Your task to perform on an android device: turn on improve location accuracy Image 0: 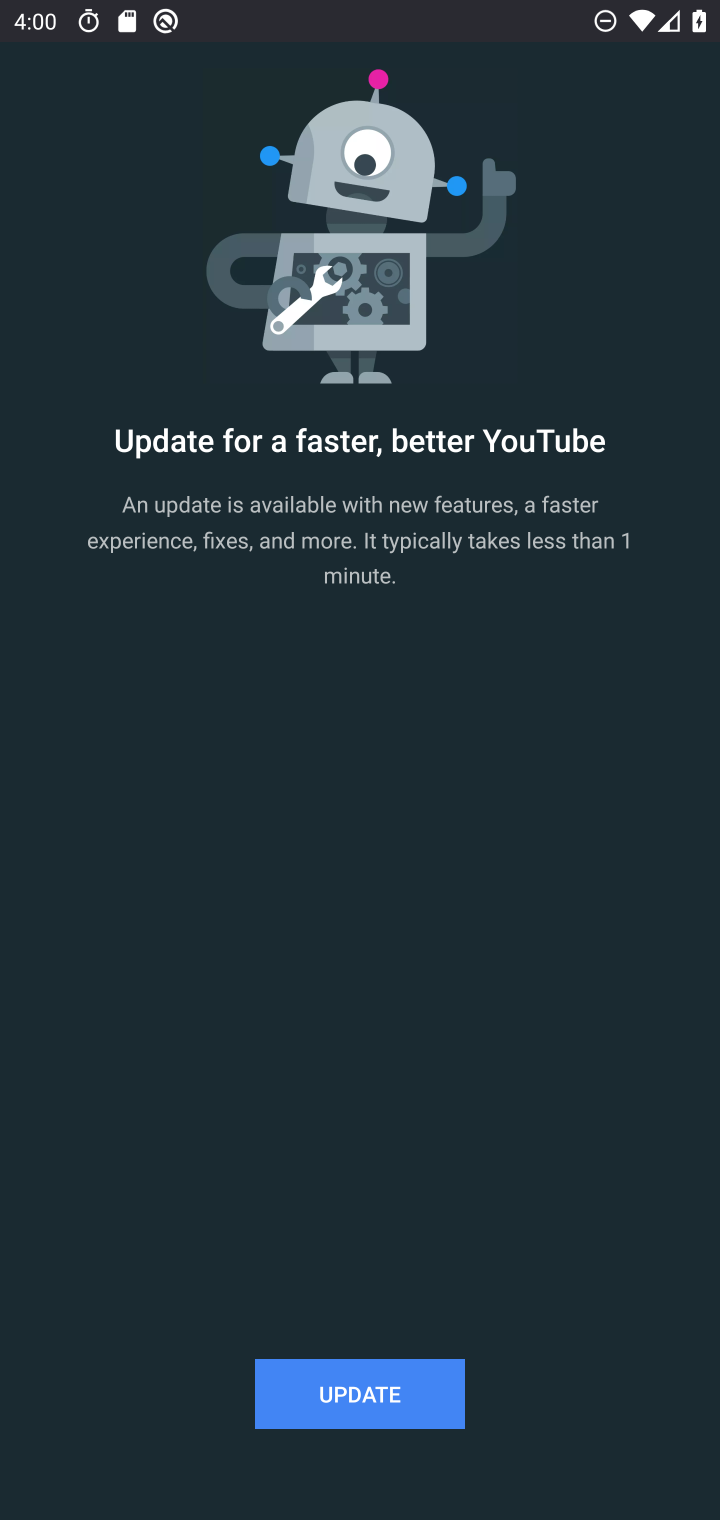
Step 0: press back button
Your task to perform on an android device: turn on improve location accuracy Image 1: 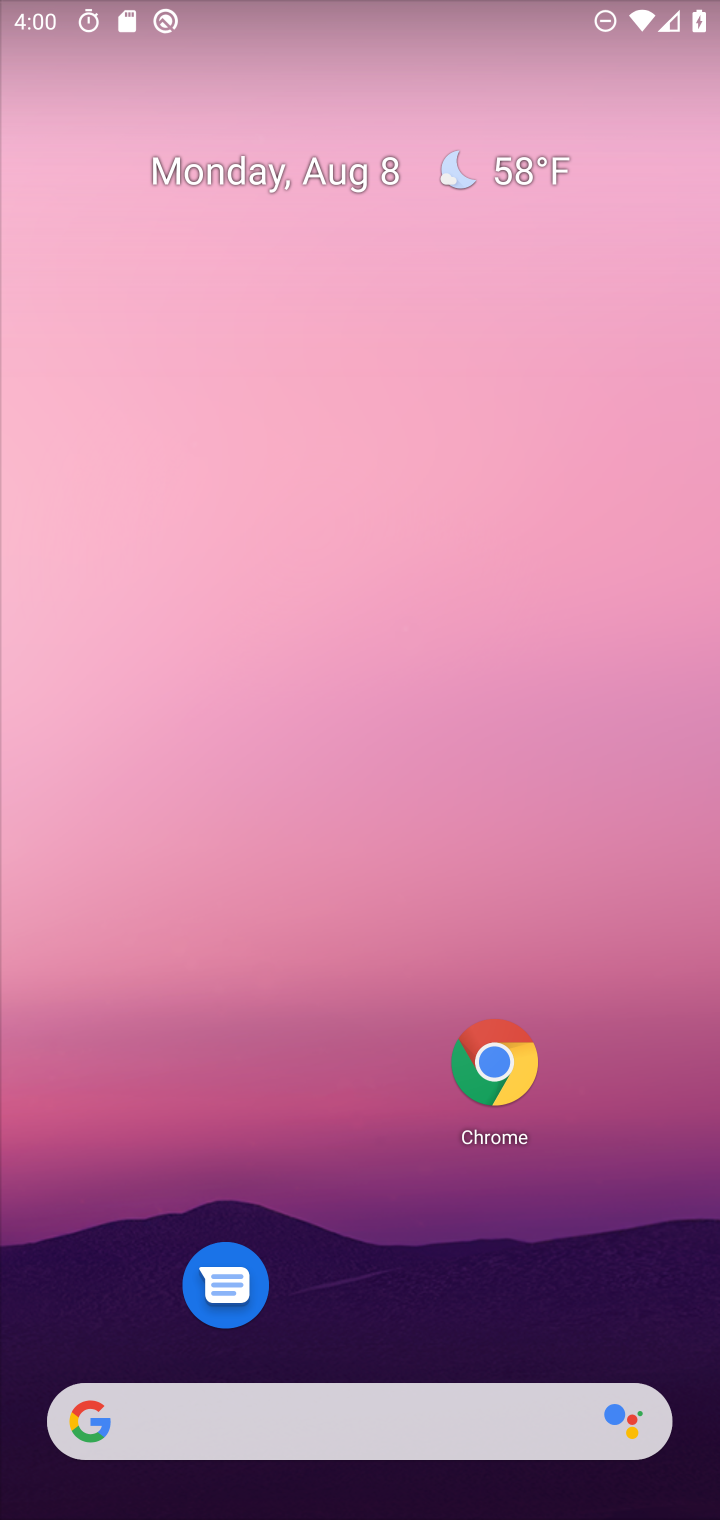
Step 1: drag from (370, 695) to (408, 67)
Your task to perform on an android device: turn on improve location accuracy Image 2: 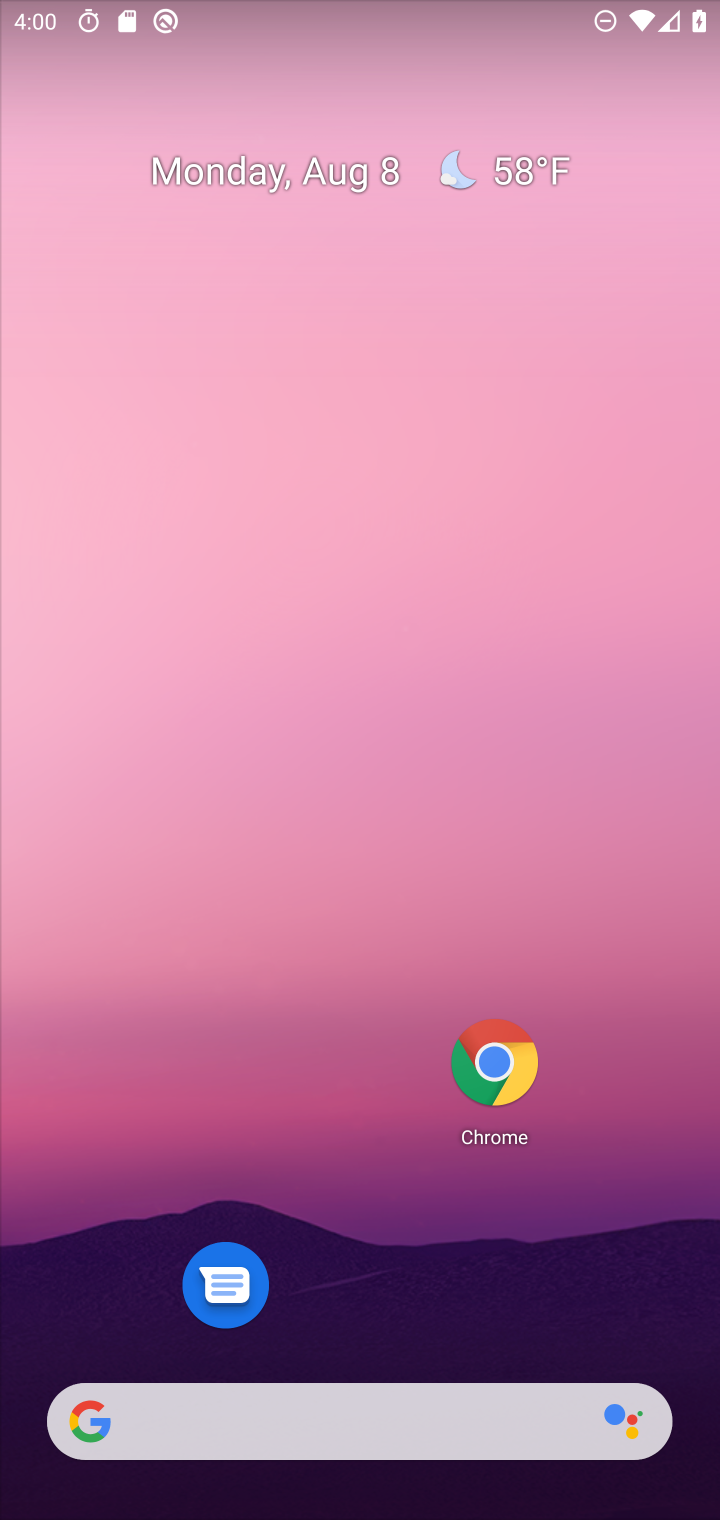
Step 2: drag from (389, 1175) to (511, 34)
Your task to perform on an android device: turn on improve location accuracy Image 3: 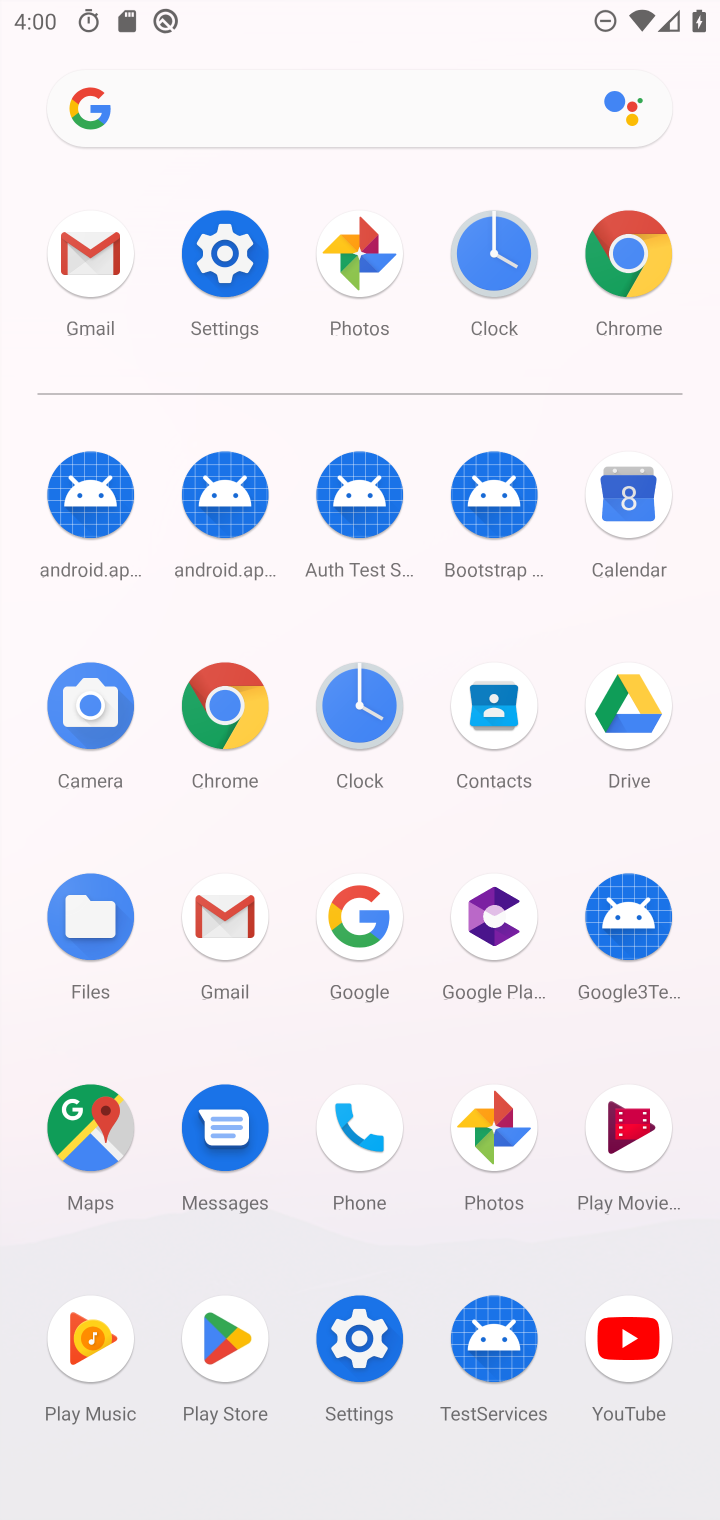
Step 3: click (373, 1348)
Your task to perform on an android device: turn on improve location accuracy Image 4: 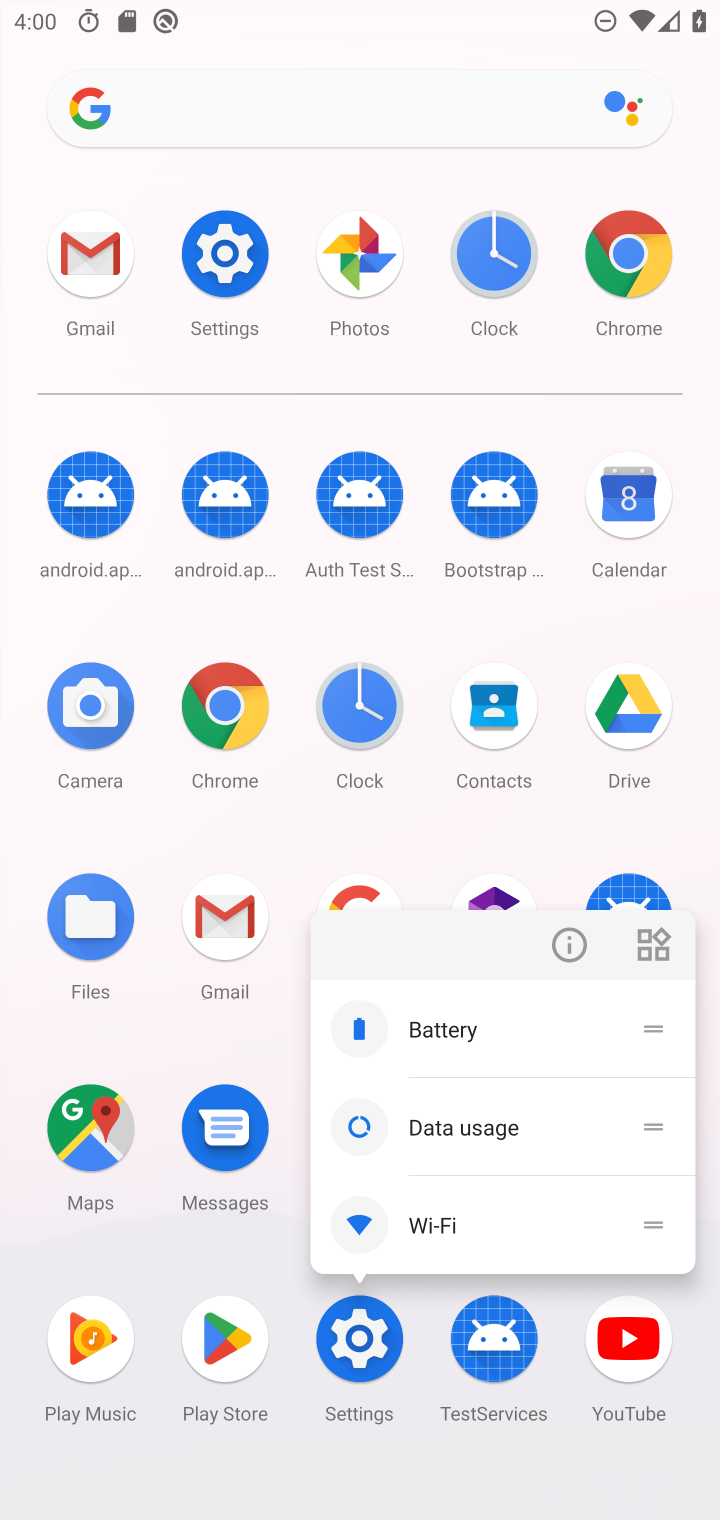
Step 4: click (354, 1340)
Your task to perform on an android device: turn on improve location accuracy Image 5: 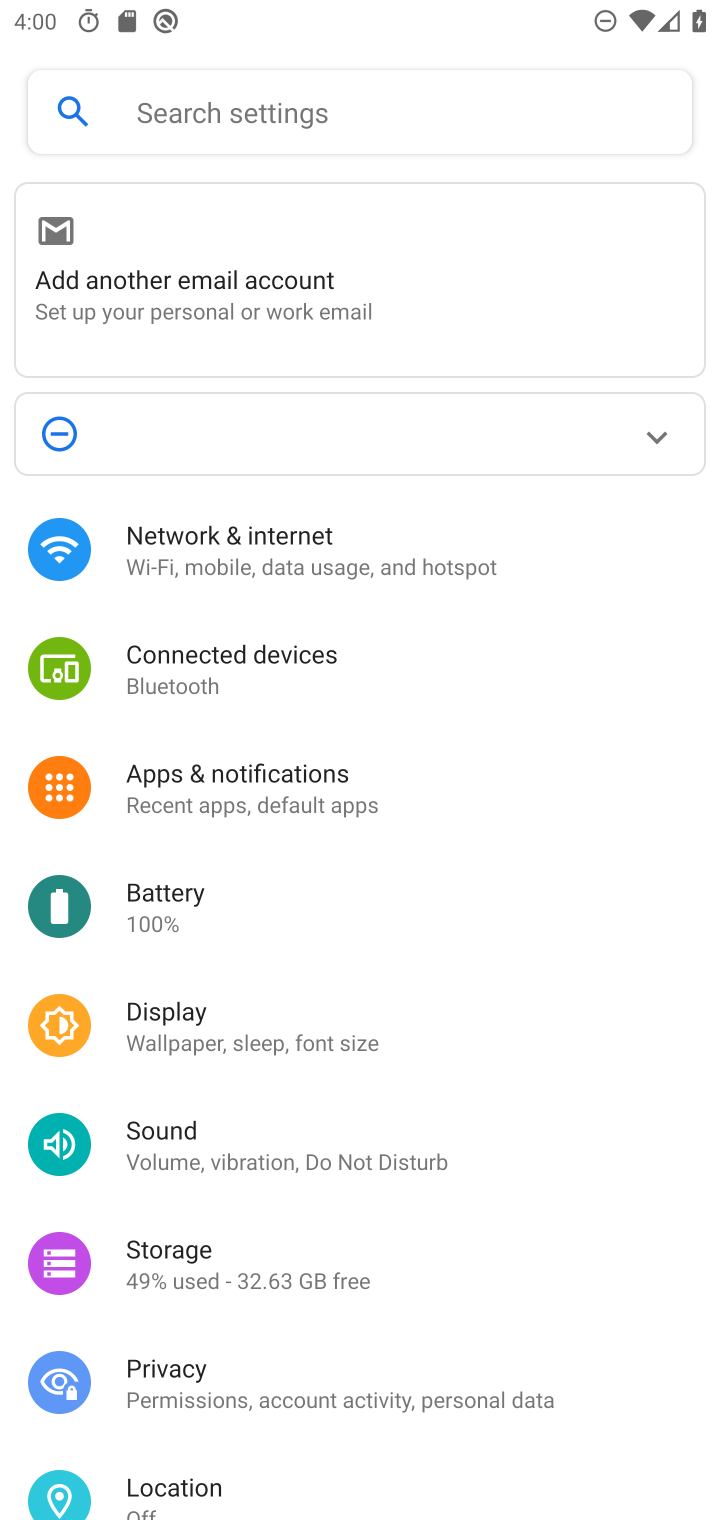
Step 5: click (233, 1483)
Your task to perform on an android device: turn on improve location accuracy Image 6: 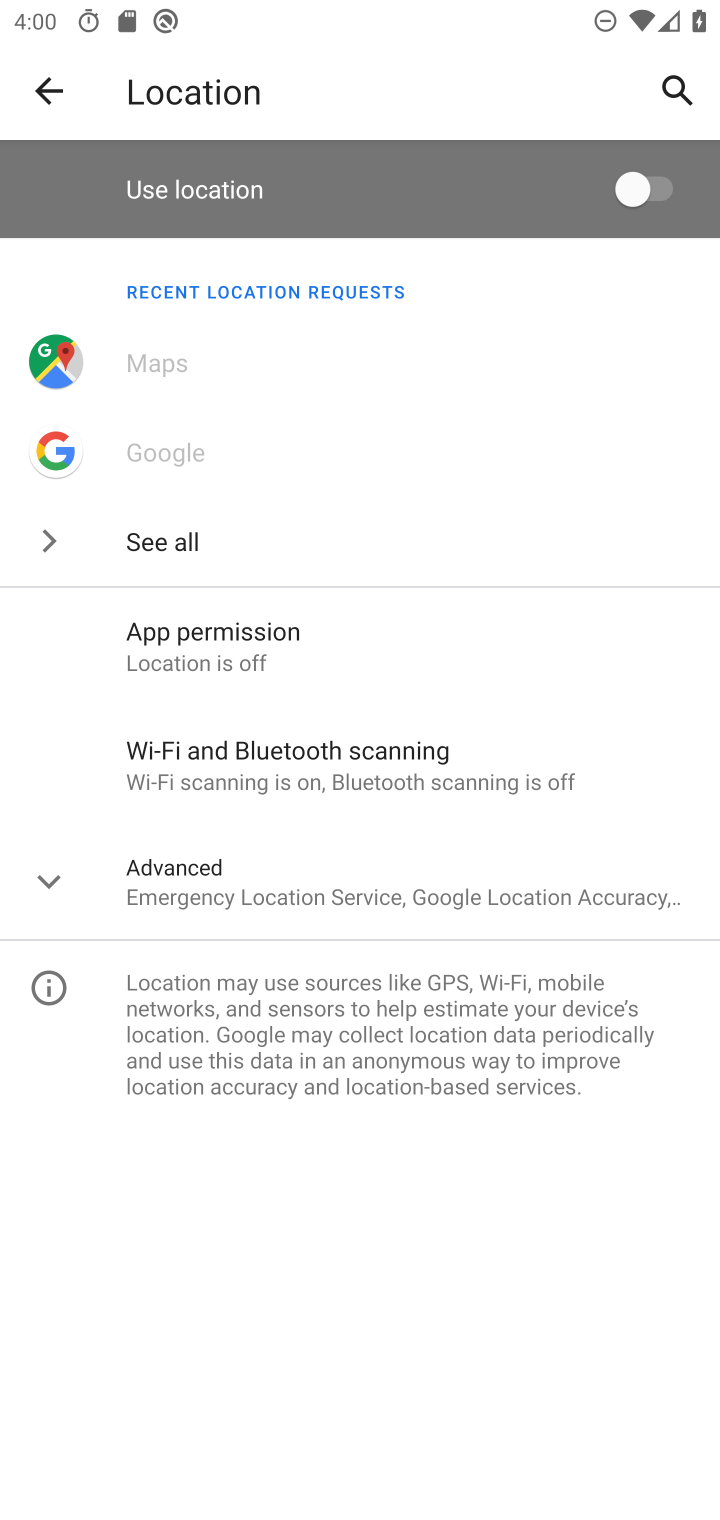
Step 6: click (234, 817)
Your task to perform on an android device: turn on improve location accuracy Image 7: 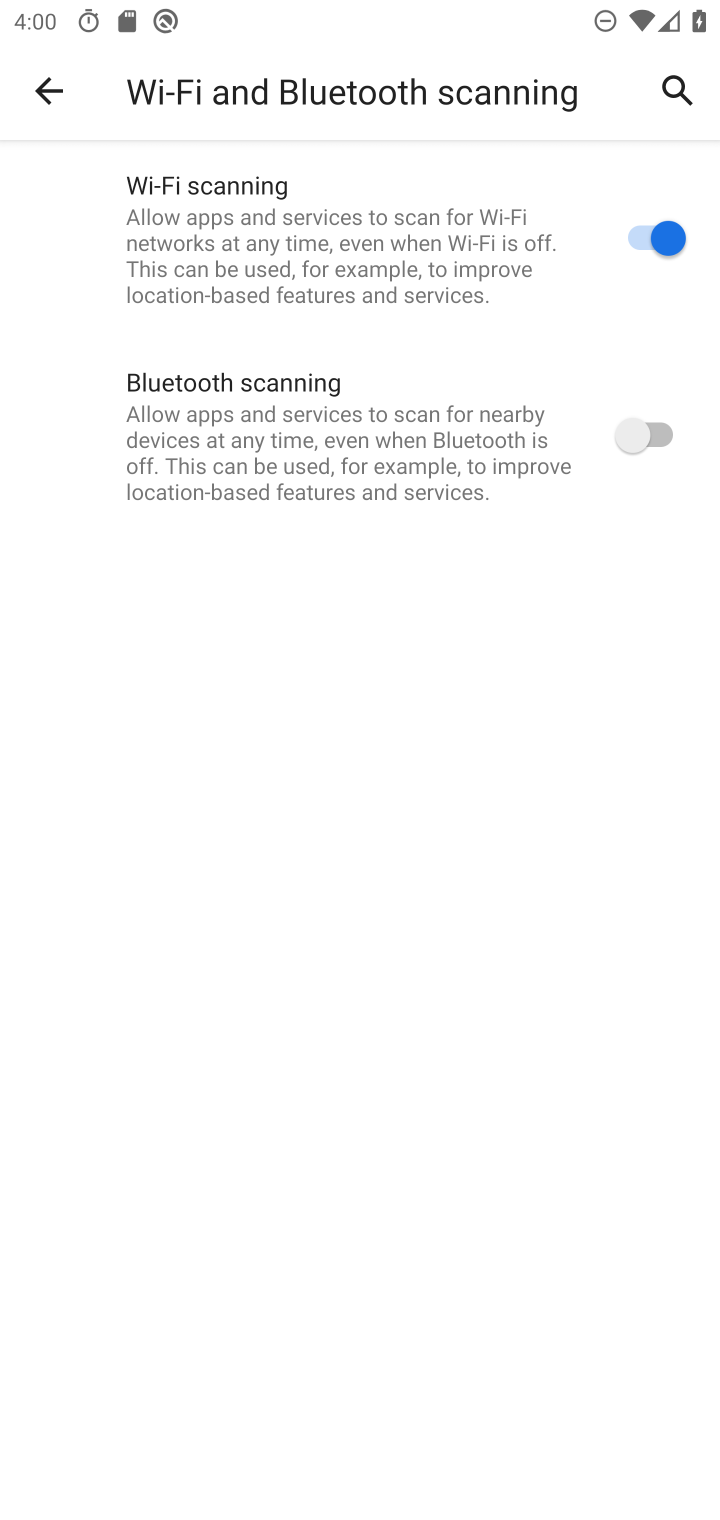
Step 7: click (55, 65)
Your task to perform on an android device: turn on improve location accuracy Image 8: 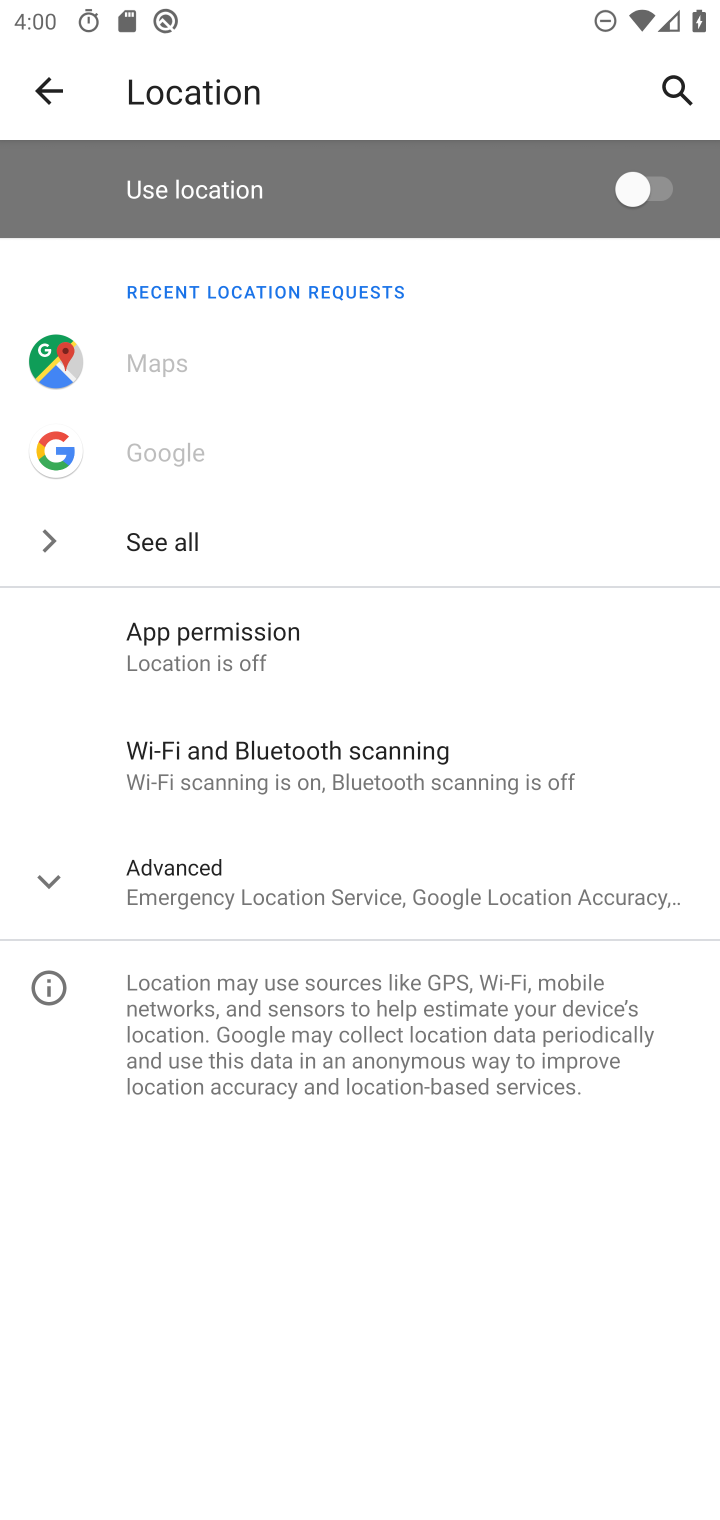
Step 8: click (200, 867)
Your task to perform on an android device: turn on improve location accuracy Image 9: 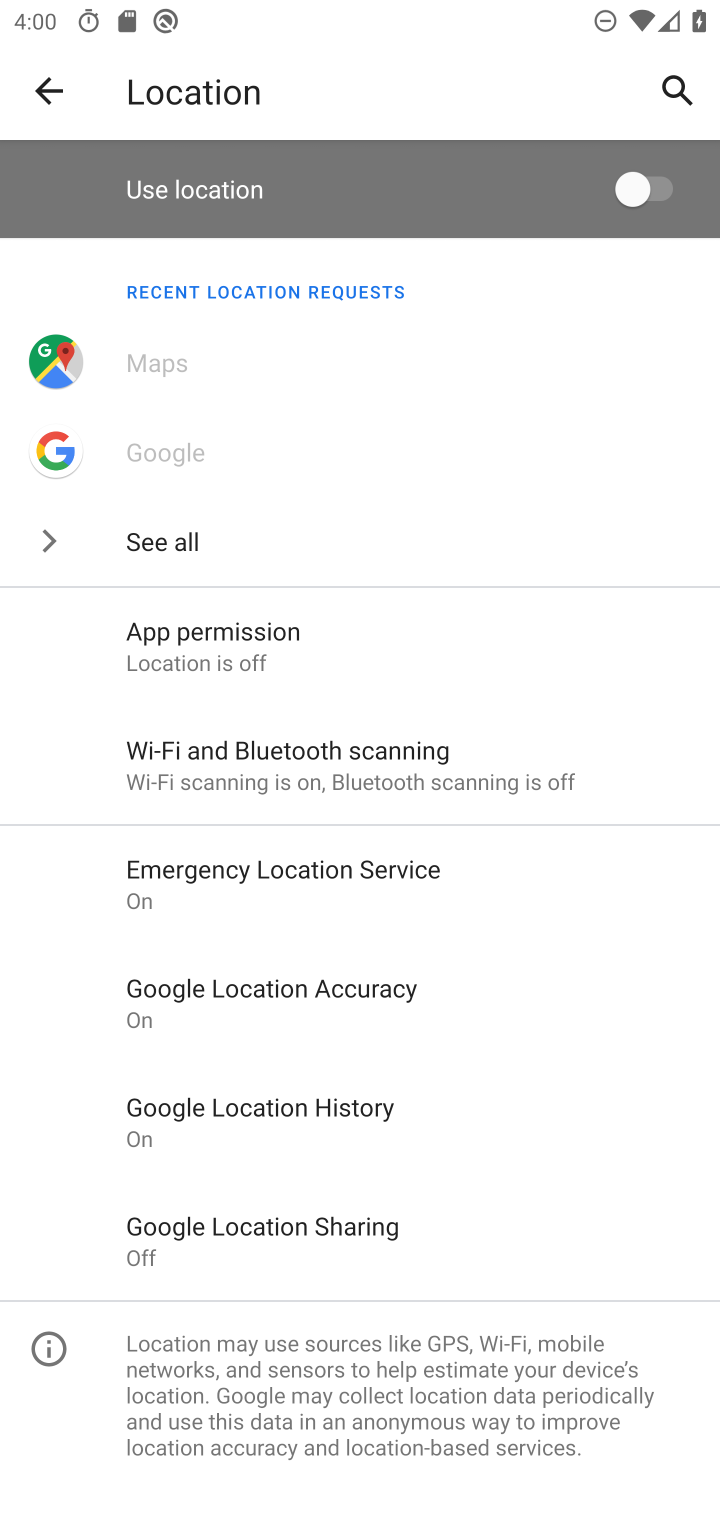
Step 9: click (264, 995)
Your task to perform on an android device: turn on improve location accuracy Image 10: 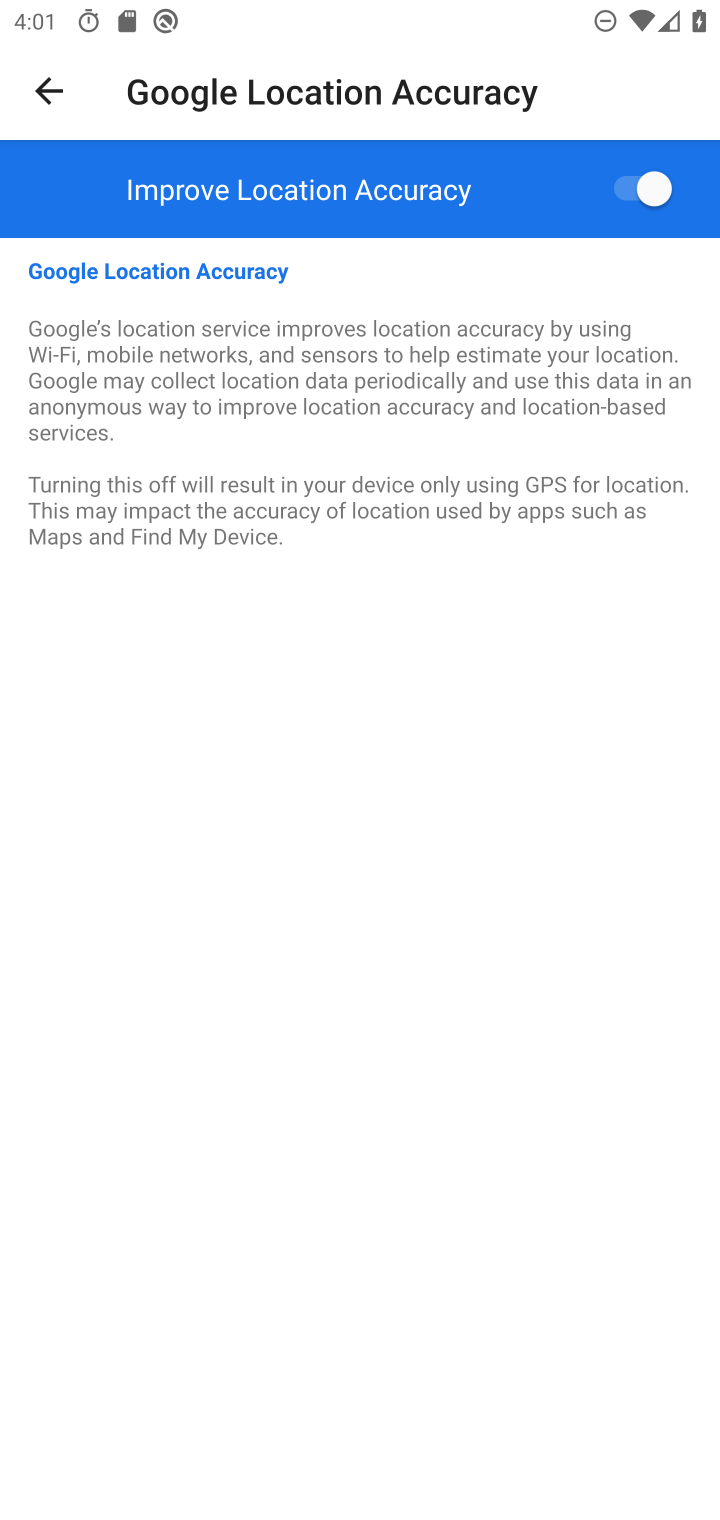
Step 10: task complete